Your task to perform on an android device: When is my next appointment? Image 0: 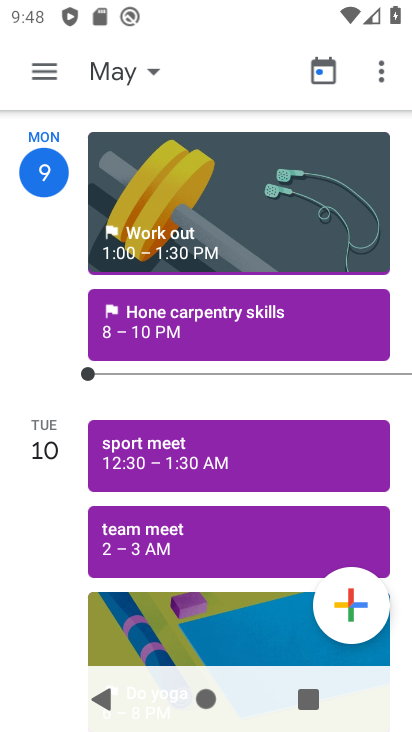
Step 0: press home button
Your task to perform on an android device: When is my next appointment? Image 1: 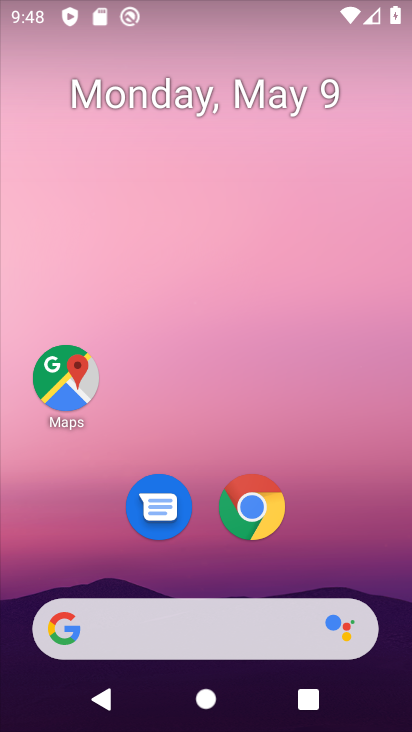
Step 1: drag from (317, 511) to (258, 60)
Your task to perform on an android device: When is my next appointment? Image 2: 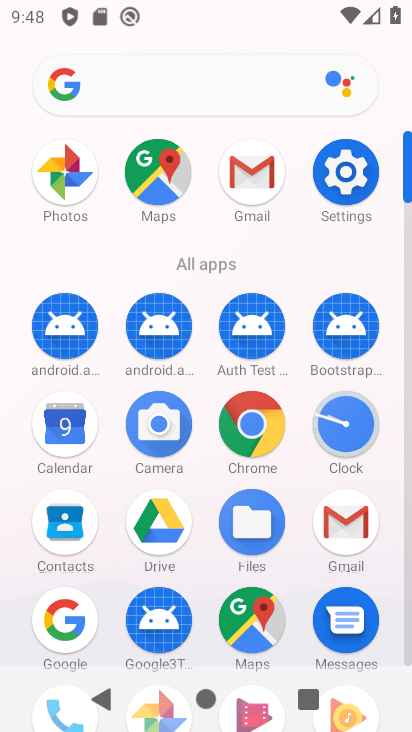
Step 2: click (66, 424)
Your task to perform on an android device: When is my next appointment? Image 3: 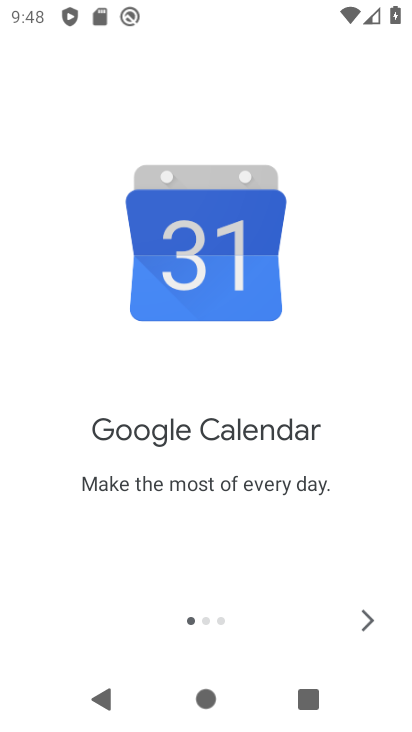
Step 3: click (361, 616)
Your task to perform on an android device: When is my next appointment? Image 4: 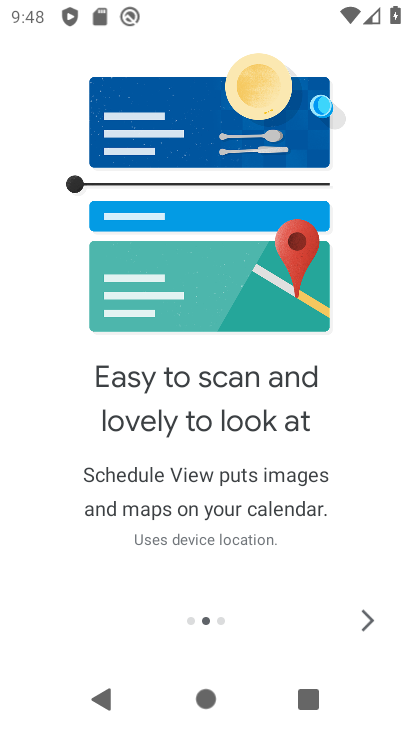
Step 4: click (362, 616)
Your task to perform on an android device: When is my next appointment? Image 5: 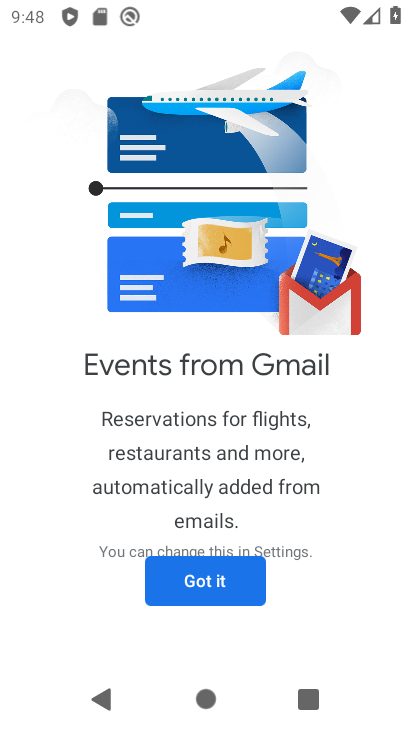
Step 5: click (239, 591)
Your task to perform on an android device: When is my next appointment? Image 6: 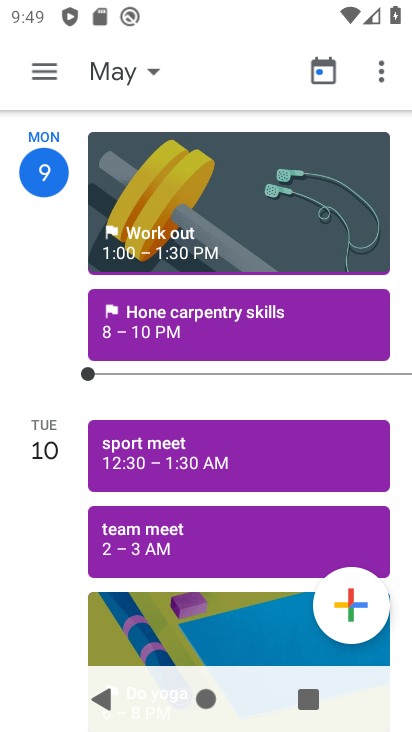
Step 6: task complete